Your task to perform on an android device: Install the eBay app Image 0: 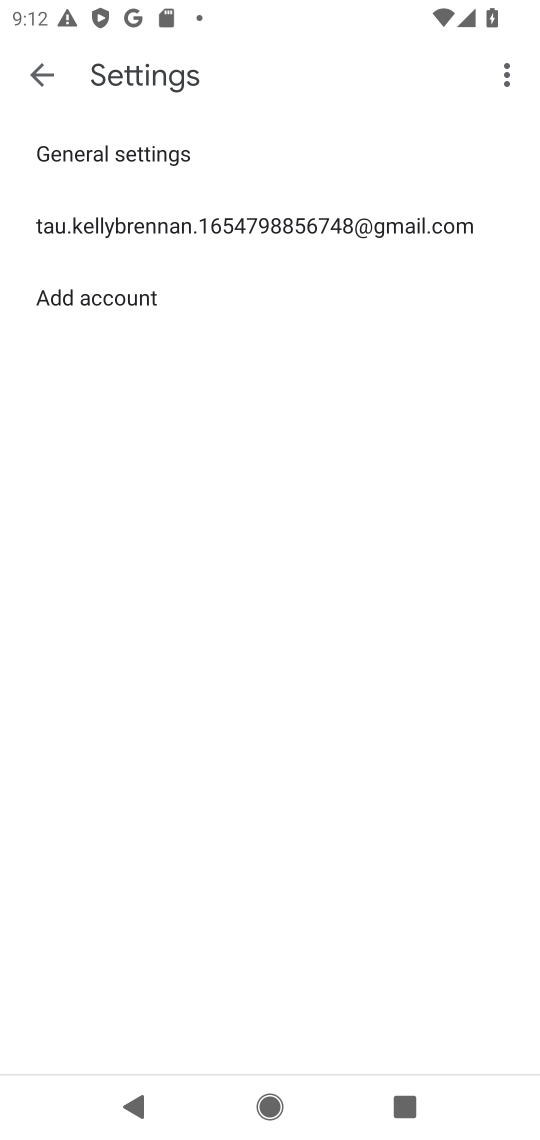
Step 0: press home button
Your task to perform on an android device: Install the eBay app Image 1: 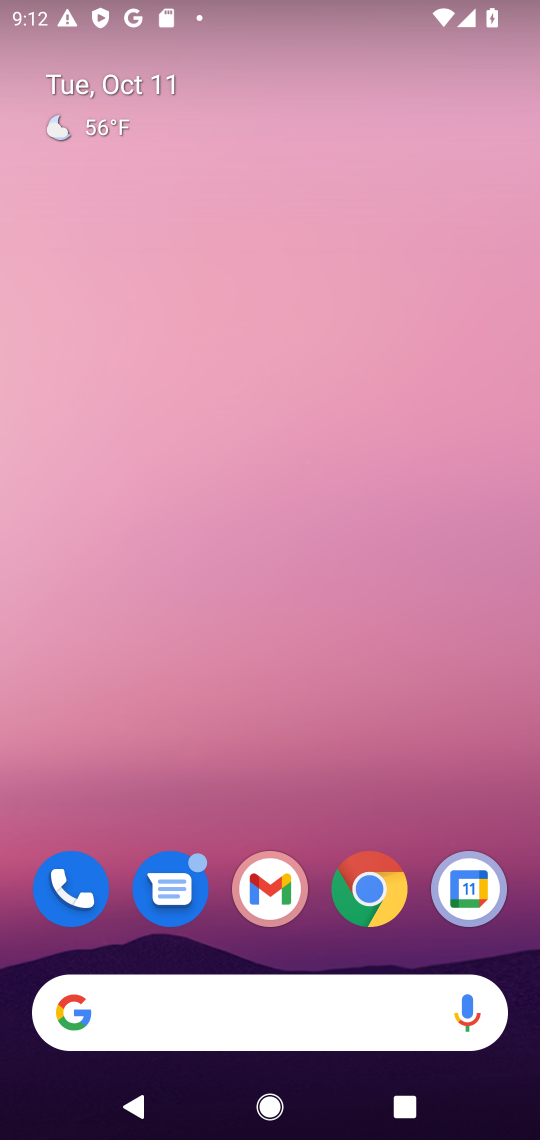
Step 1: drag from (274, 780) to (331, 279)
Your task to perform on an android device: Install the eBay app Image 2: 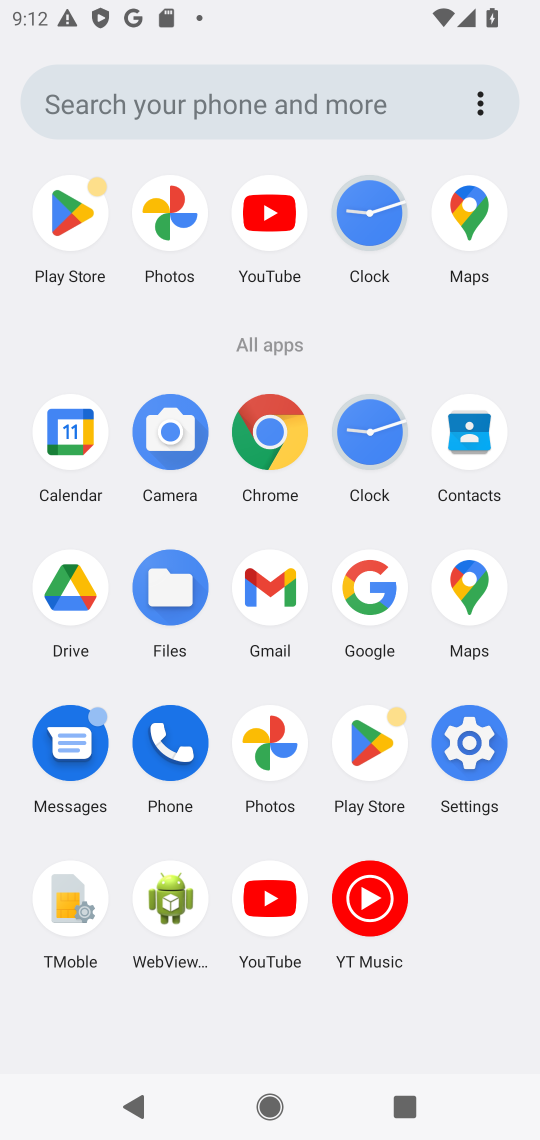
Step 2: click (366, 732)
Your task to perform on an android device: Install the eBay app Image 3: 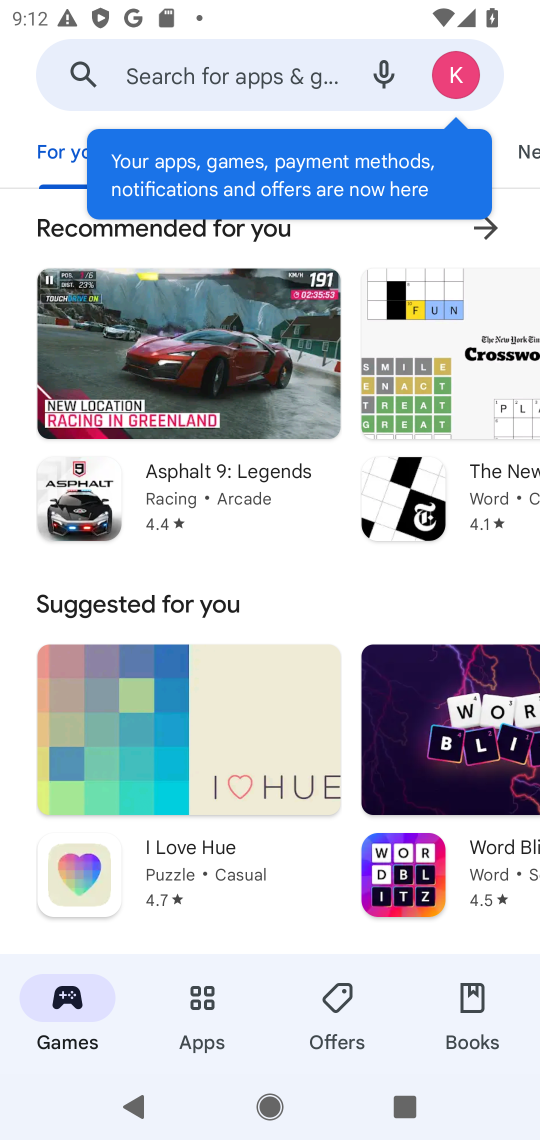
Step 3: click (198, 66)
Your task to perform on an android device: Install the eBay app Image 4: 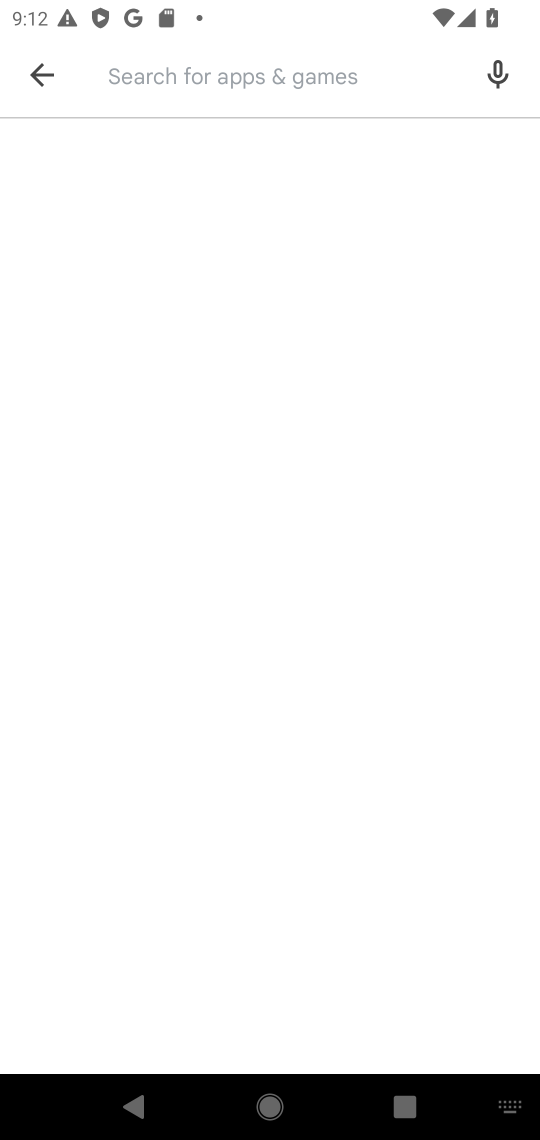
Step 4: type "ebay"
Your task to perform on an android device: Install the eBay app Image 5: 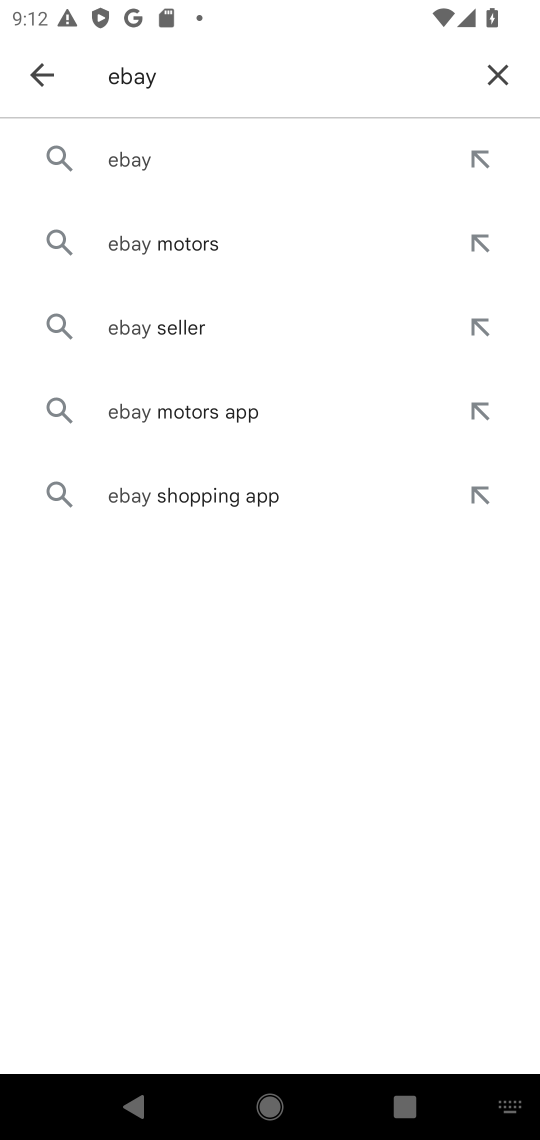
Step 5: click (173, 164)
Your task to perform on an android device: Install the eBay app Image 6: 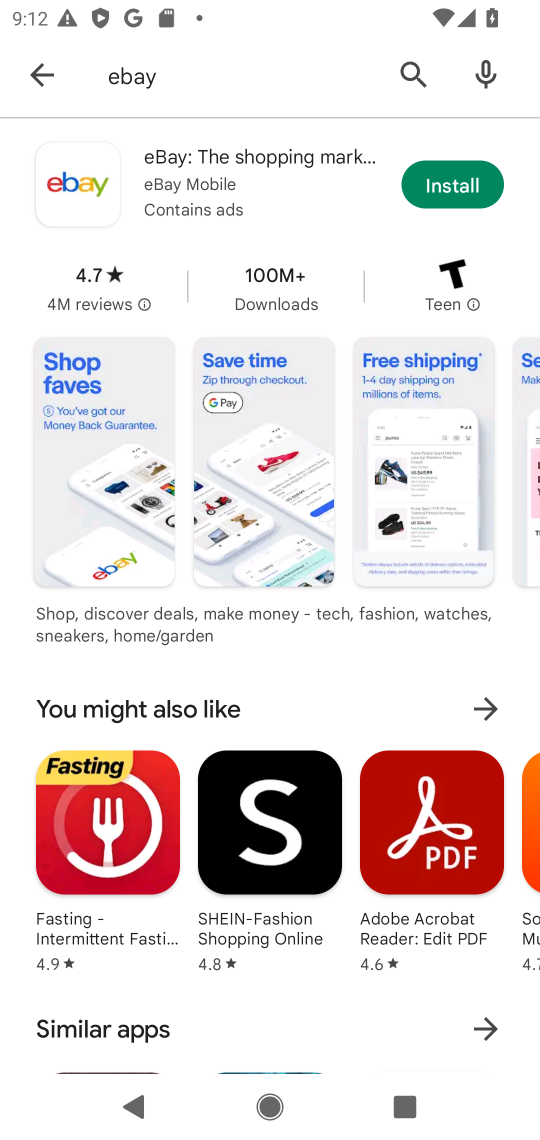
Step 6: click (480, 184)
Your task to perform on an android device: Install the eBay app Image 7: 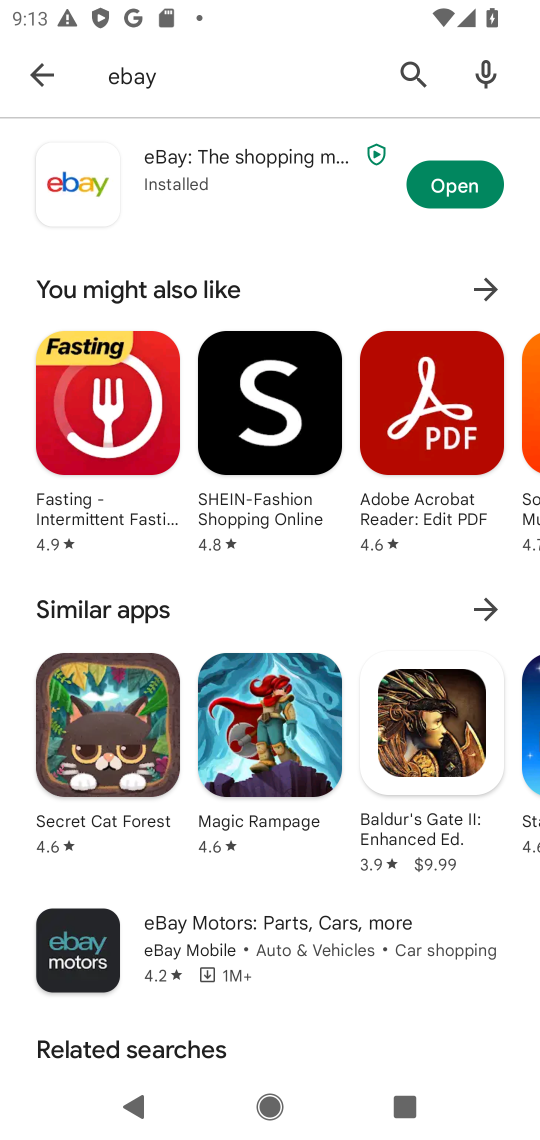
Step 7: task complete